Your task to perform on an android device: Show me popular games on the Play Store Image 0: 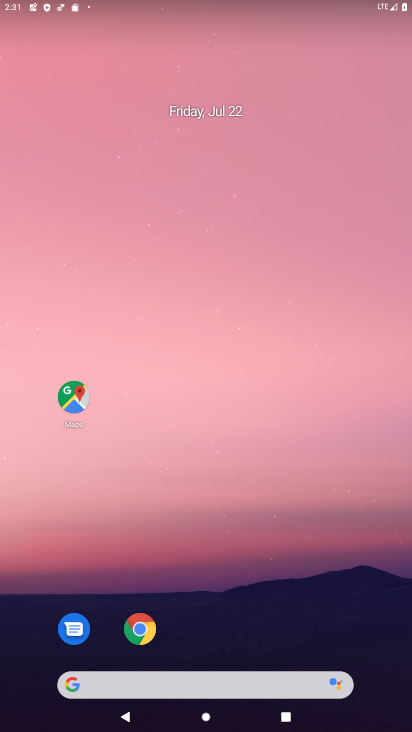
Step 0: drag from (208, 667) to (215, 163)
Your task to perform on an android device: Show me popular games on the Play Store Image 1: 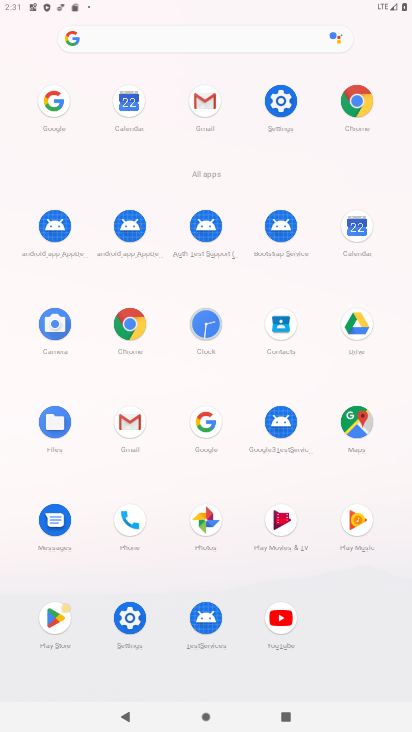
Step 1: click (69, 629)
Your task to perform on an android device: Show me popular games on the Play Store Image 2: 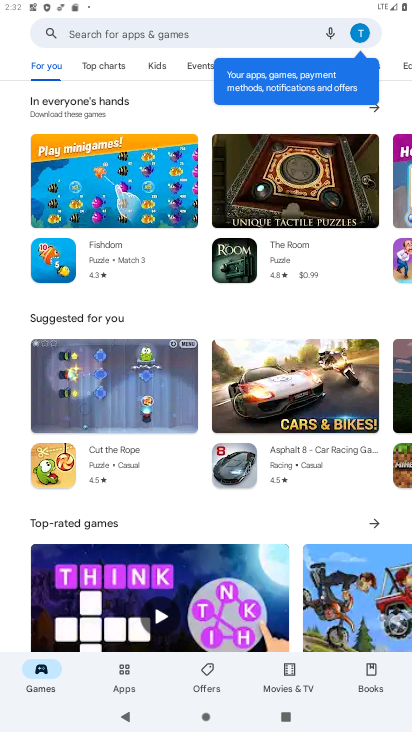
Step 2: drag from (254, 415) to (250, 239)
Your task to perform on an android device: Show me popular games on the Play Store Image 3: 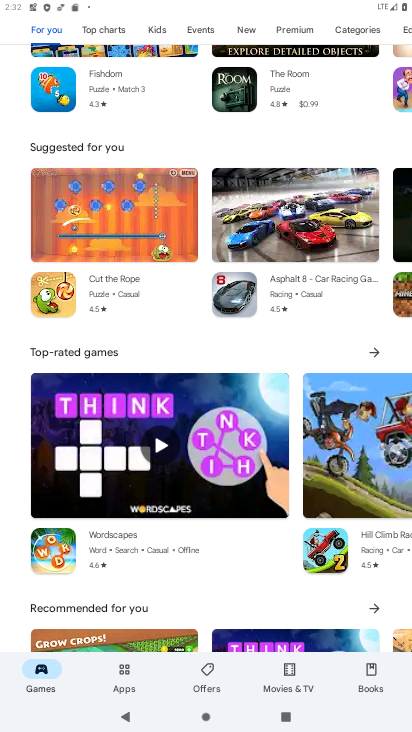
Step 3: click (378, 347)
Your task to perform on an android device: Show me popular games on the Play Store Image 4: 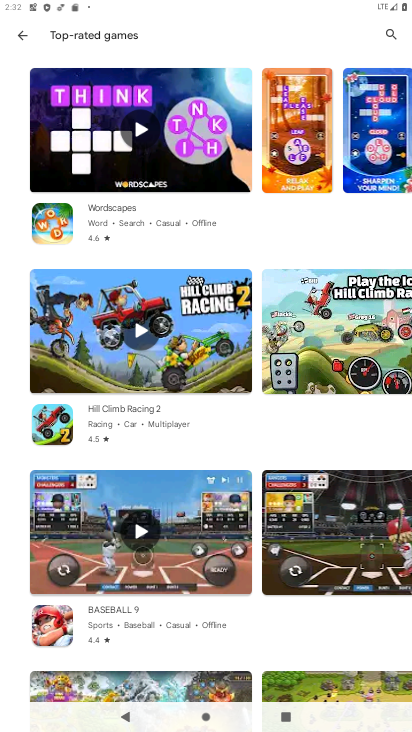
Step 4: task complete